Your task to perform on an android device: Empty the shopping cart on newegg.com. Search for "bose soundsport free" on newegg.com, select the first entry, and add it to the cart. Image 0: 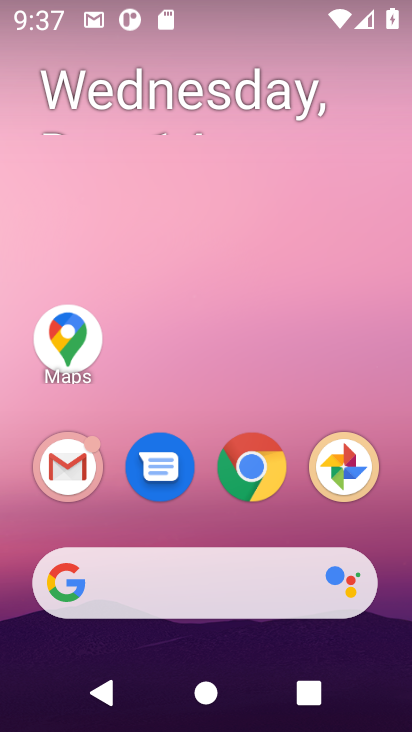
Step 0: click (224, 462)
Your task to perform on an android device: Empty the shopping cart on newegg.com. Search for "bose soundsport free" on newegg.com, select the first entry, and add it to the cart. Image 1: 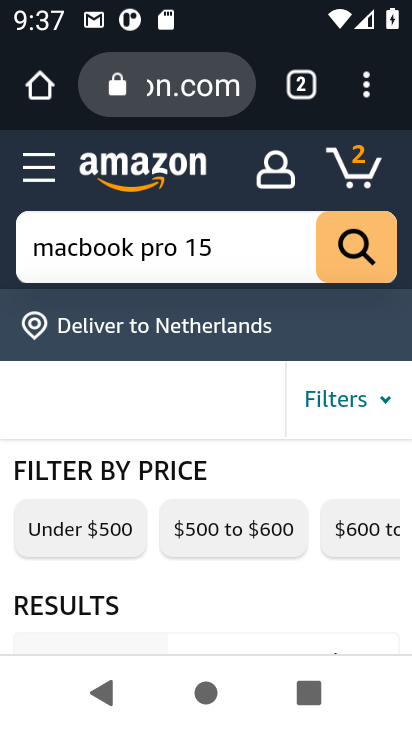
Step 1: click (160, 103)
Your task to perform on an android device: Empty the shopping cart on newegg.com. Search for "bose soundsport free" on newegg.com, select the first entry, and add it to the cart. Image 2: 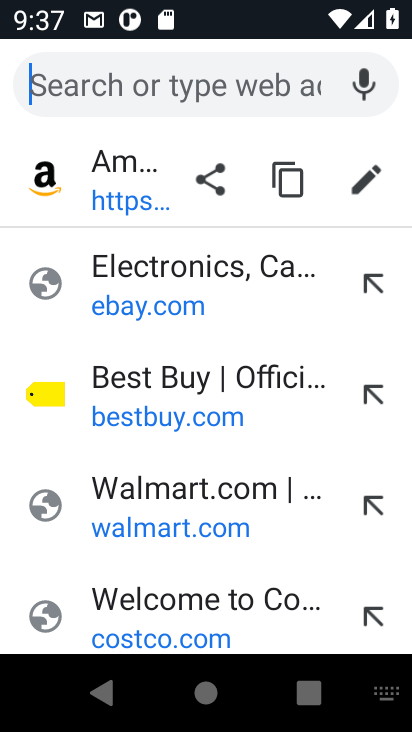
Step 2: type "ebay"
Your task to perform on an android device: Empty the shopping cart on newegg.com. Search for "bose soundsport free" on newegg.com, select the first entry, and add it to the cart. Image 3: 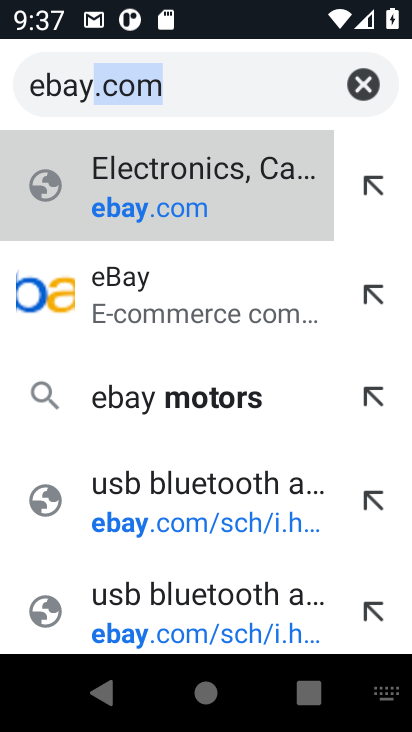
Step 3: click (129, 211)
Your task to perform on an android device: Empty the shopping cart on newegg.com. Search for "bose soundsport free" on newegg.com, select the first entry, and add it to the cart. Image 4: 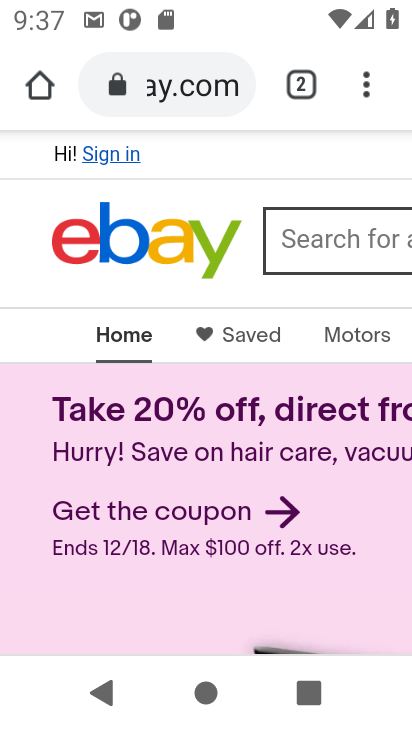
Step 4: click (315, 249)
Your task to perform on an android device: Empty the shopping cart on newegg.com. Search for "bose soundsport free" on newegg.com, select the first entry, and add it to the cart. Image 5: 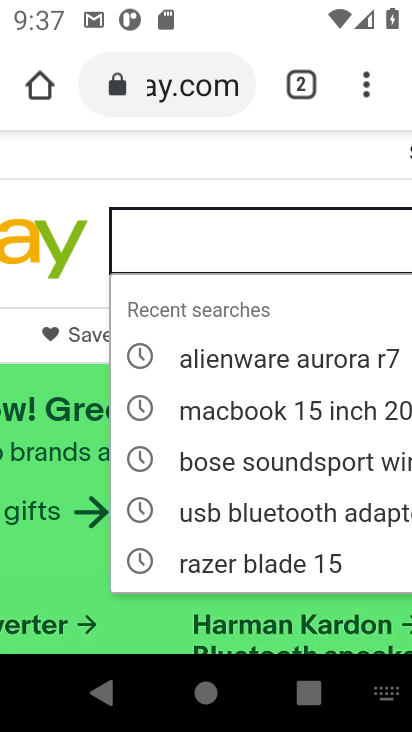
Step 5: type "bose soundsport"
Your task to perform on an android device: Empty the shopping cart on newegg.com. Search for "bose soundsport free" on newegg.com, select the first entry, and add it to the cart. Image 6: 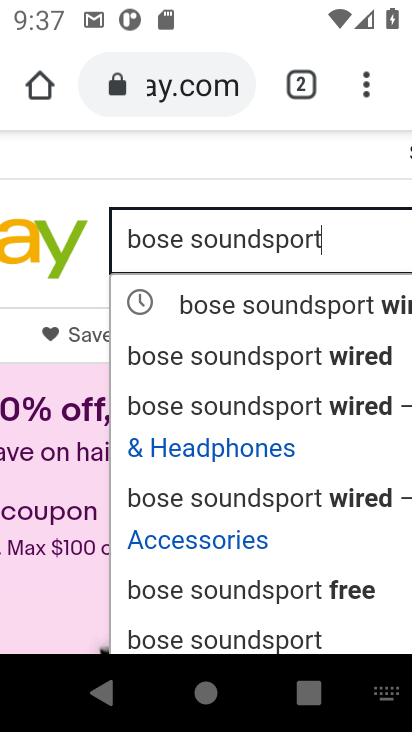
Step 6: click (236, 310)
Your task to perform on an android device: Empty the shopping cart on newegg.com. Search for "bose soundsport free" on newegg.com, select the first entry, and add it to the cart. Image 7: 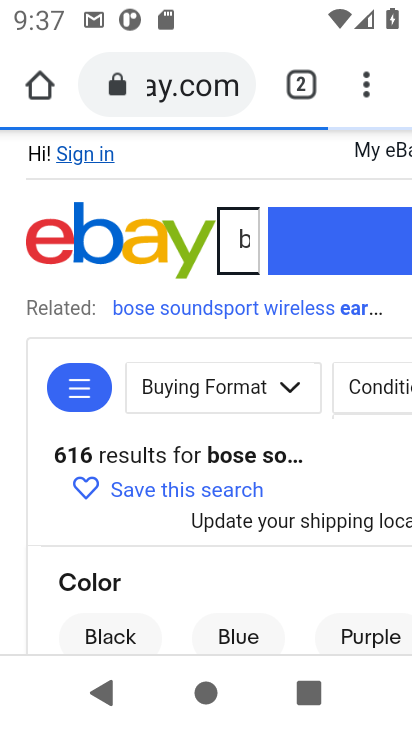
Step 7: task complete